Your task to perform on an android device: What's on my calendar today? Image 0: 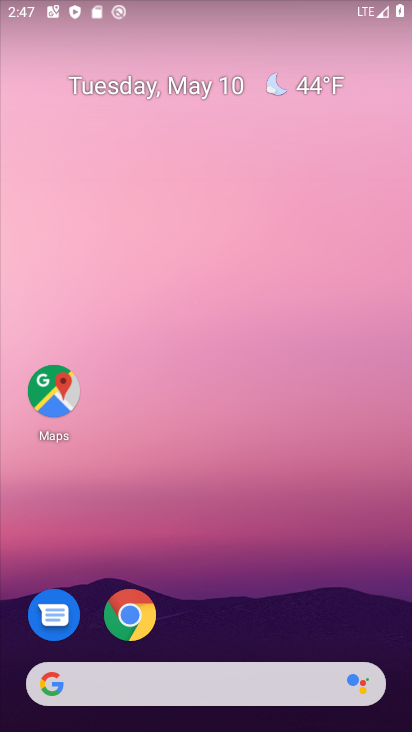
Step 0: press home button
Your task to perform on an android device: What's on my calendar today? Image 1: 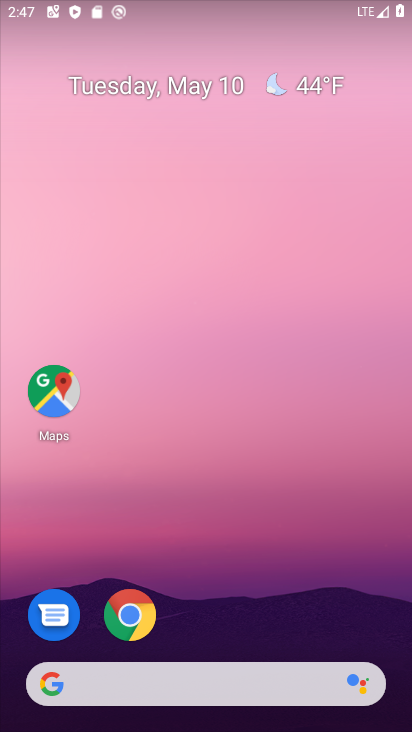
Step 1: drag from (271, 615) to (318, 13)
Your task to perform on an android device: What's on my calendar today? Image 2: 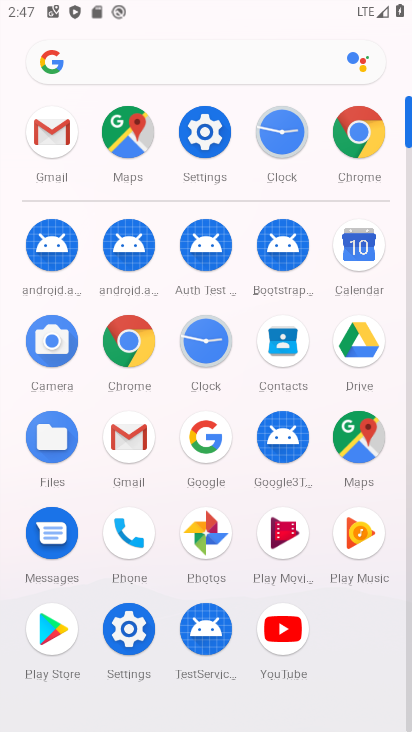
Step 2: click (357, 262)
Your task to perform on an android device: What's on my calendar today? Image 3: 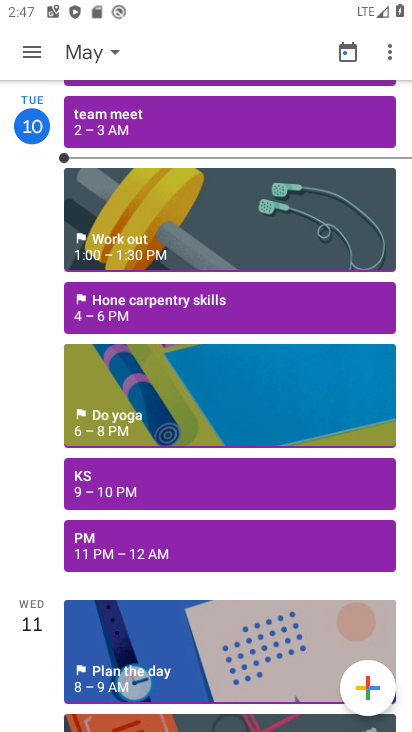
Step 3: click (104, 42)
Your task to perform on an android device: What's on my calendar today? Image 4: 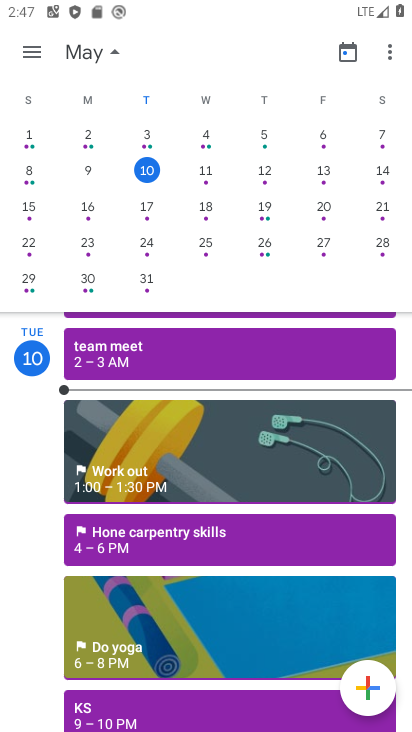
Step 4: click (81, 64)
Your task to perform on an android device: What's on my calendar today? Image 5: 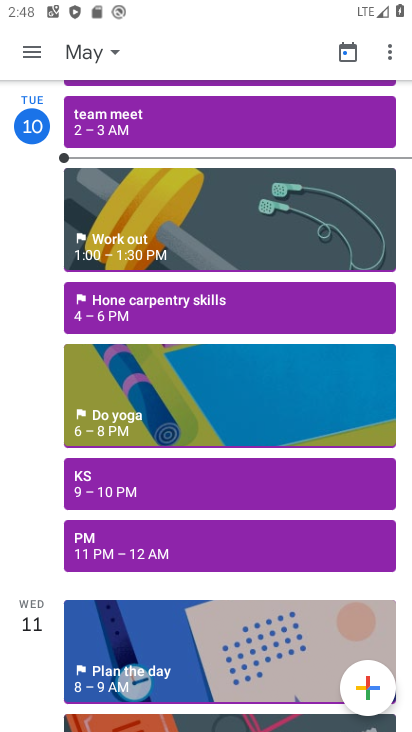
Step 5: task complete